Your task to perform on an android device: open app "DoorDash - Dasher" (install if not already installed) and go to login screen Image 0: 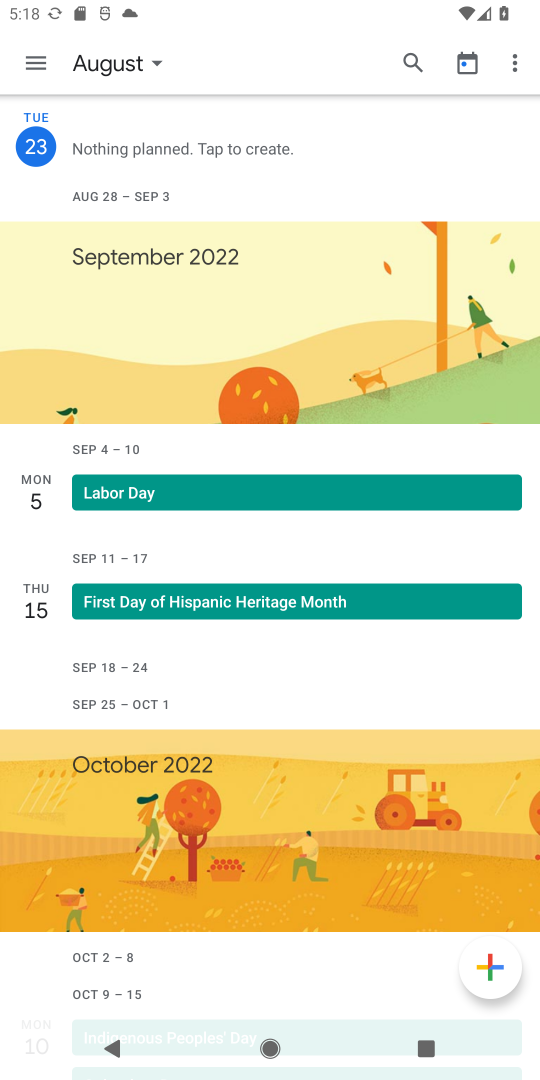
Step 0: press home button
Your task to perform on an android device: open app "DoorDash - Dasher" (install if not already installed) and go to login screen Image 1: 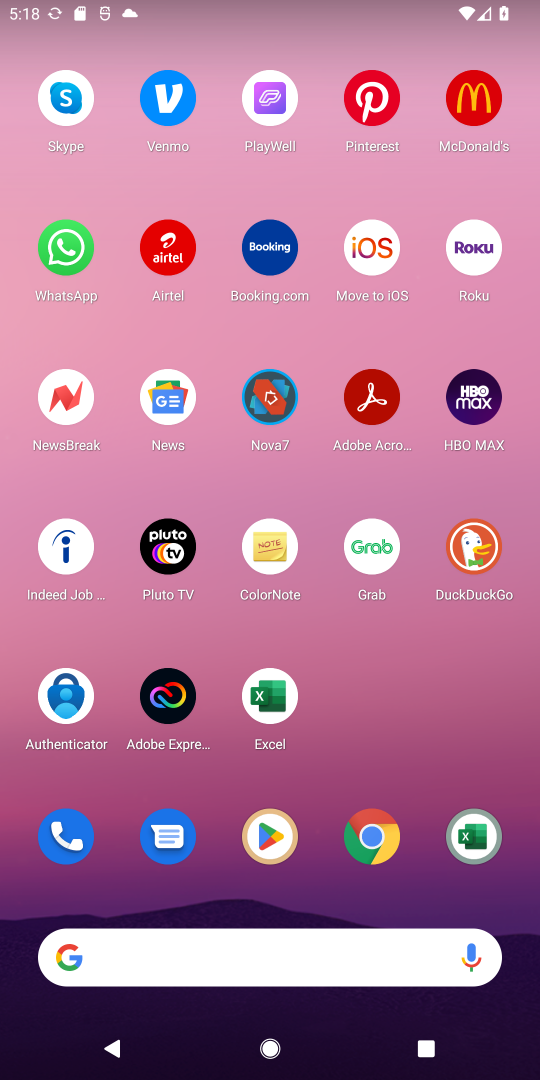
Step 1: click (267, 836)
Your task to perform on an android device: open app "DoorDash - Dasher" (install if not already installed) and go to login screen Image 2: 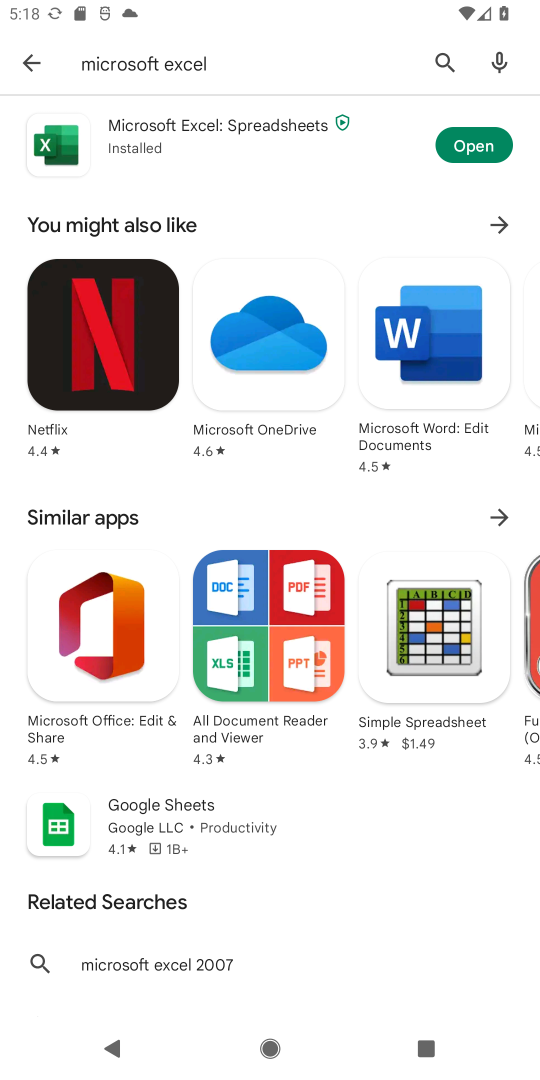
Step 2: click (441, 60)
Your task to perform on an android device: open app "DoorDash - Dasher" (install if not already installed) and go to login screen Image 3: 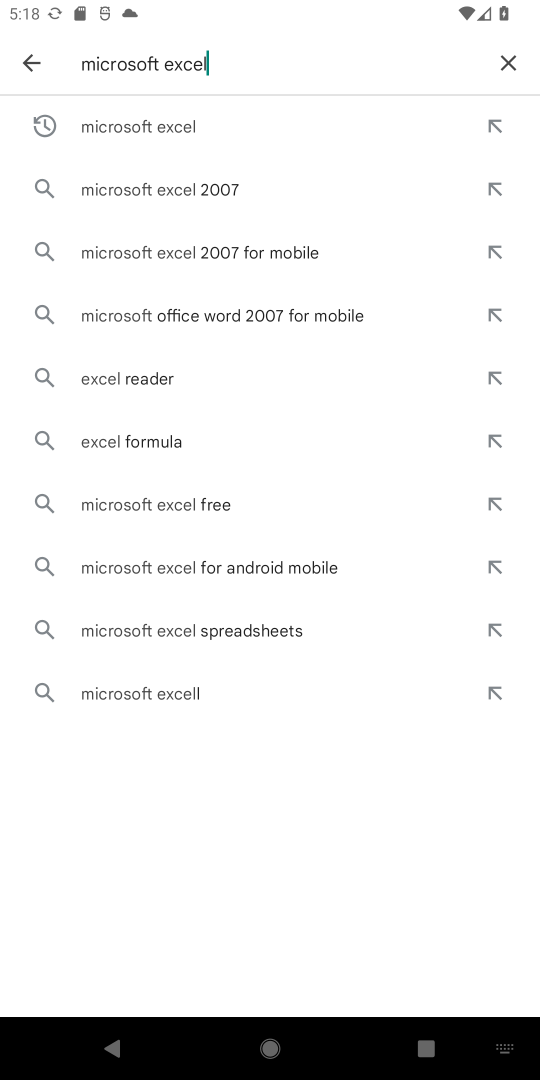
Step 3: click (513, 54)
Your task to perform on an android device: open app "DoorDash - Dasher" (install if not already installed) and go to login screen Image 4: 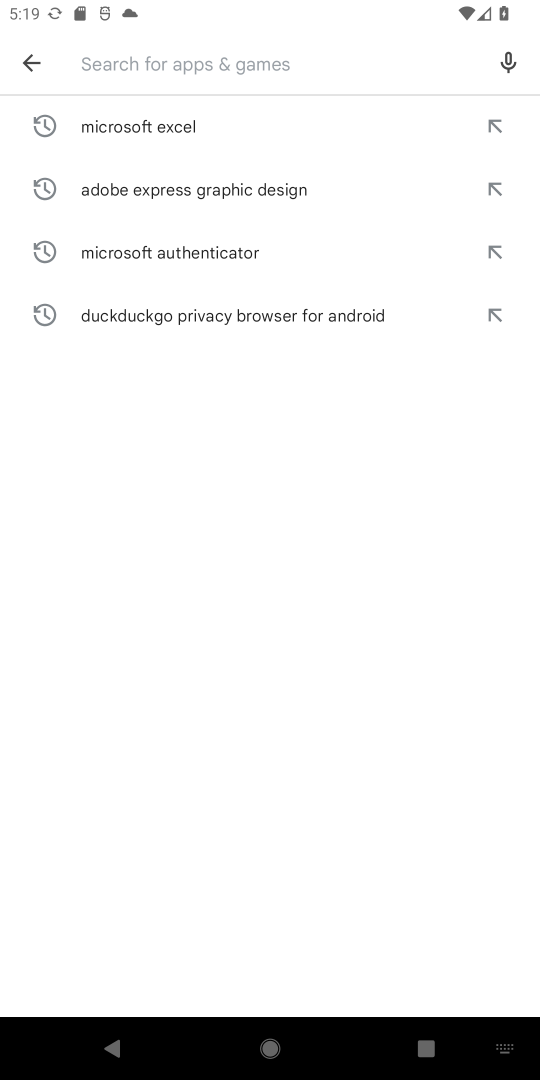
Step 4: type "DoorDash - Dasher"
Your task to perform on an android device: open app "DoorDash - Dasher" (install if not already installed) and go to login screen Image 5: 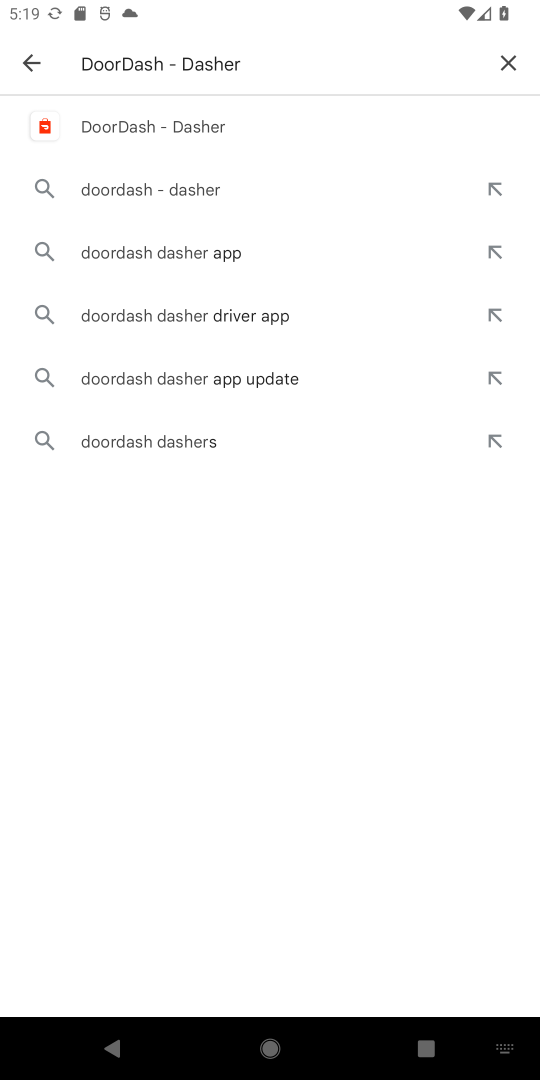
Step 5: click (150, 129)
Your task to perform on an android device: open app "DoorDash - Dasher" (install if not already installed) and go to login screen Image 6: 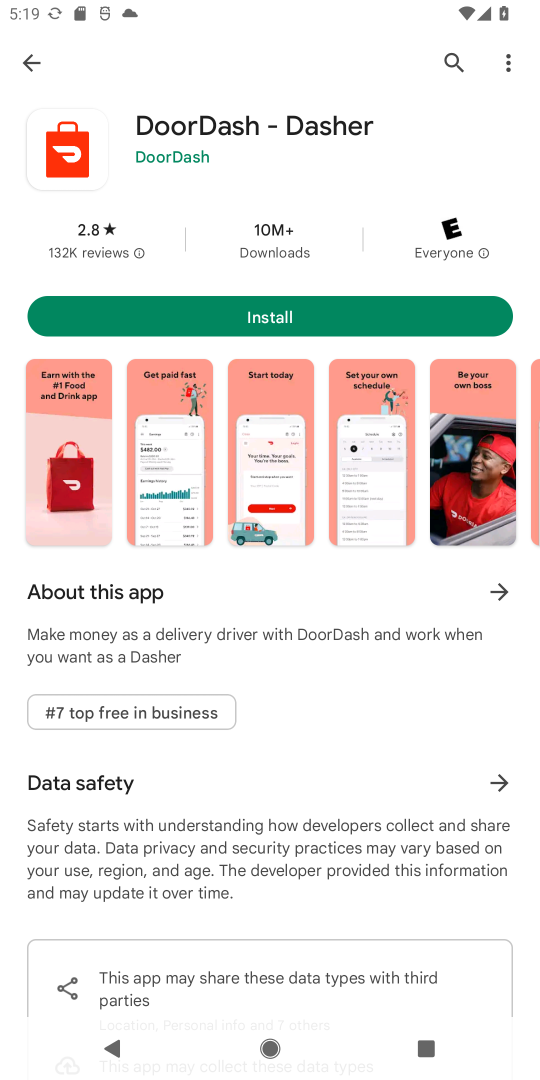
Step 6: click (273, 318)
Your task to perform on an android device: open app "DoorDash - Dasher" (install if not already installed) and go to login screen Image 7: 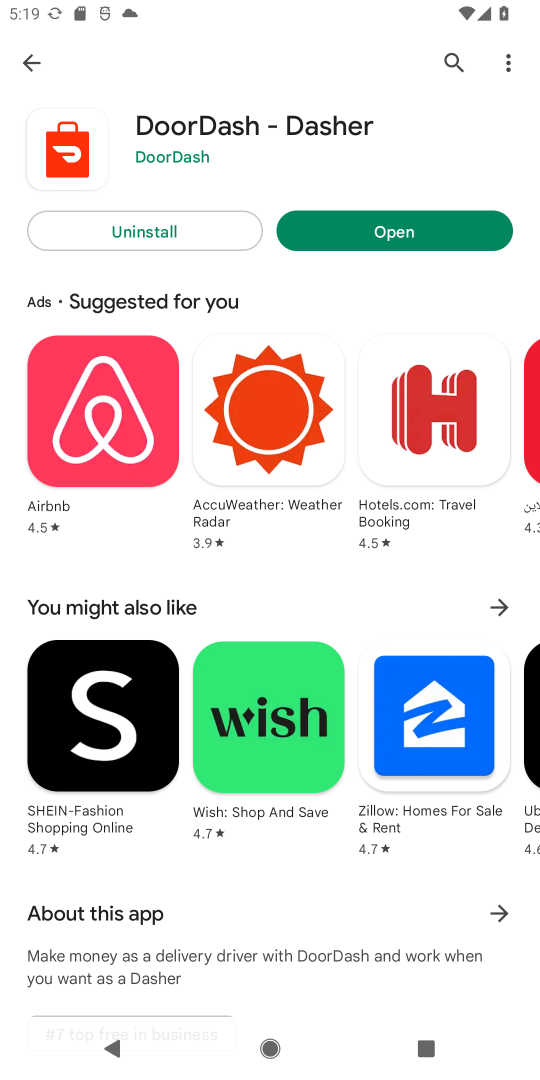
Step 7: click (388, 230)
Your task to perform on an android device: open app "DoorDash - Dasher" (install if not already installed) and go to login screen Image 8: 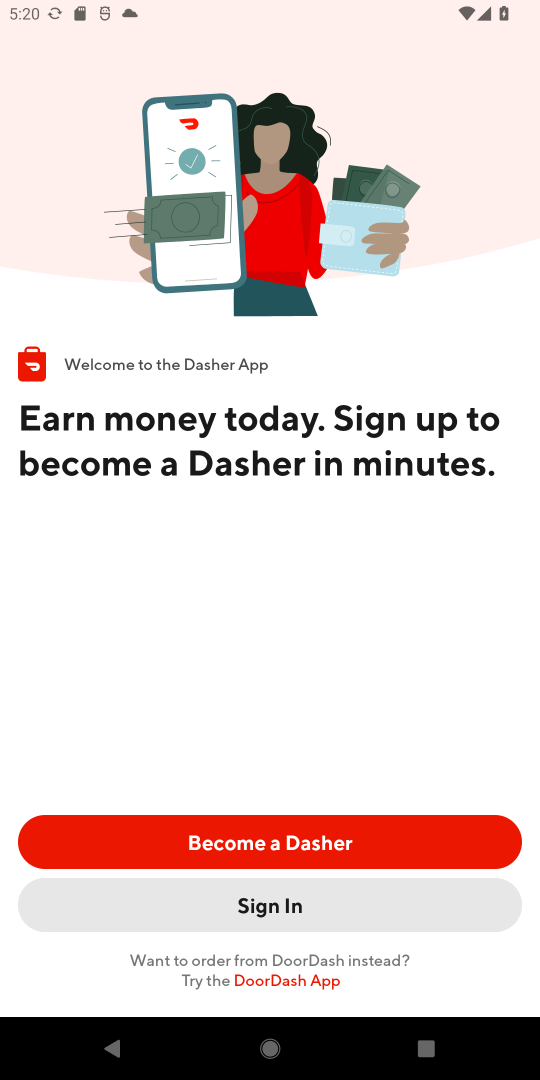
Step 8: click (268, 907)
Your task to perform on an android device: open app "DoorDash - Dasher" (install if not already installed) and go to login screen Image 9: 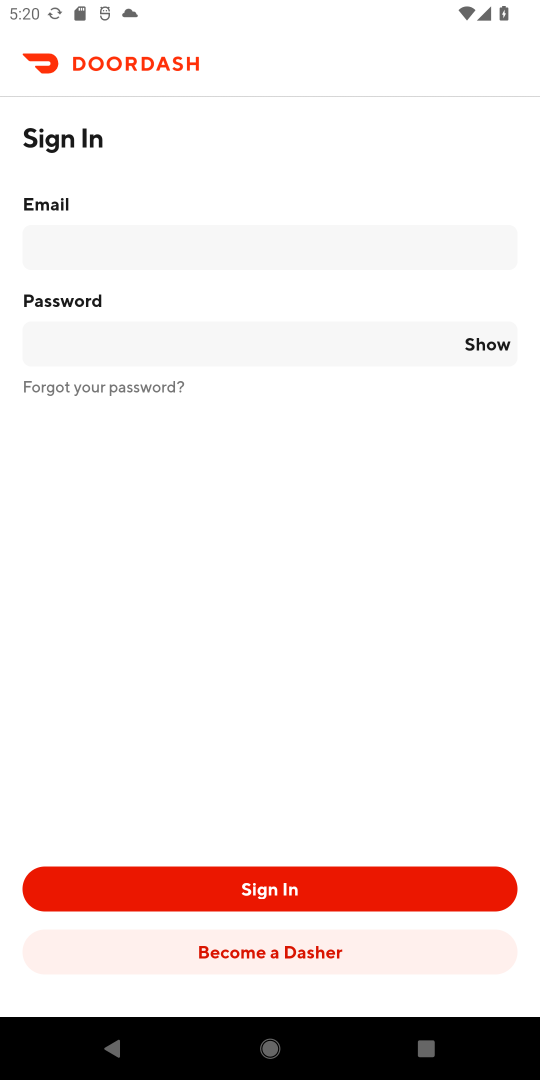
Step 9: task complete